Your task to perform on an android device: Open Yahoo.com Image 0: 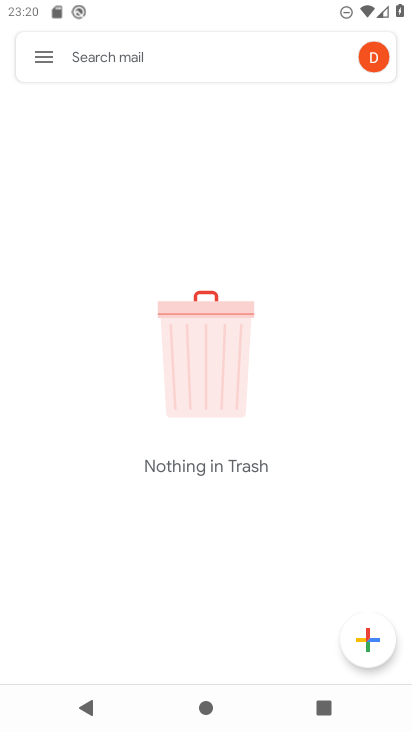
Step 0: press home button
Your task to perform on an android device: Open Yahoo.com Image 1: 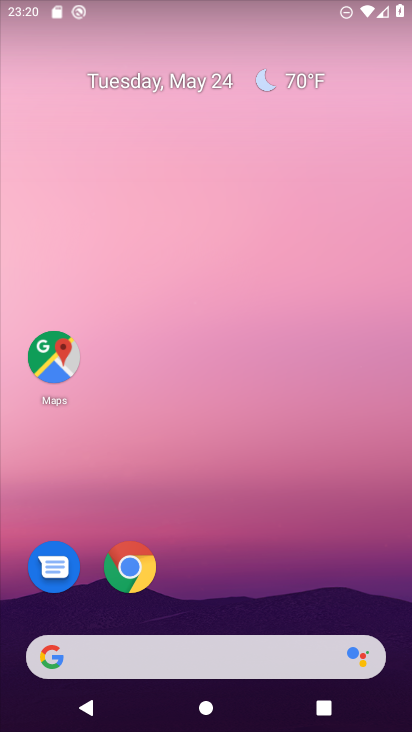
Step 1: click (139, 572)
Your task to perform on an android device: Open Yahoo.com Image 2: 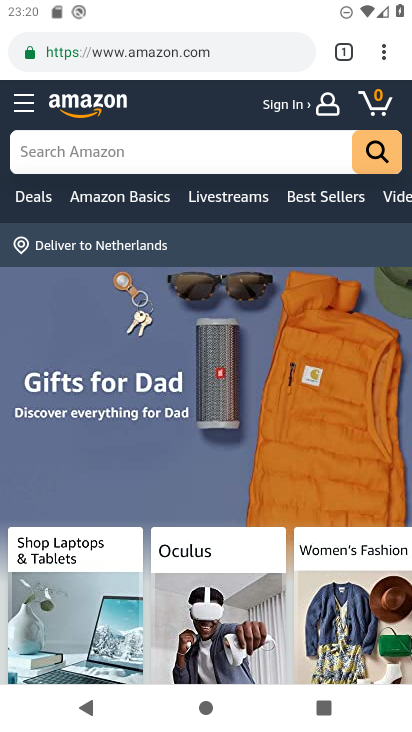
Step 2: click (335, 48)
Your task to perform on an android device: Open Yahoo.com Image 3: 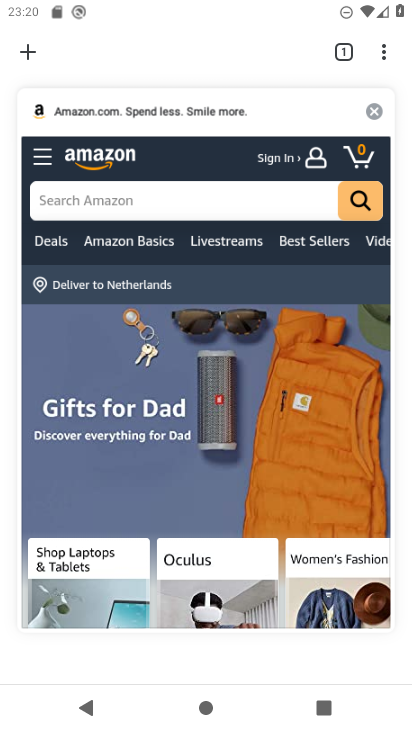
Step 3: click (36, 53)
Your task to perform on an android device: Open Yahoo.com Image 4: 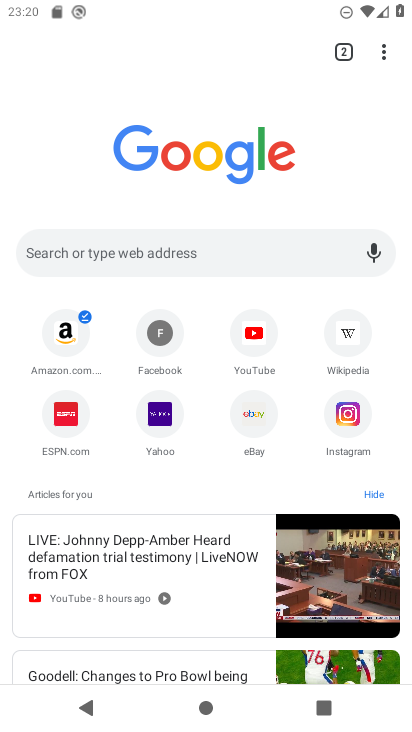
Step 4: click (159, 418)
Your task to perform on an android device: Open Yahoo.com Image 5: 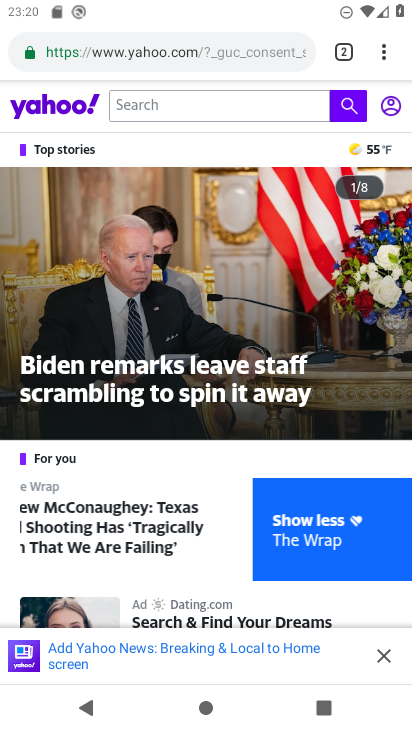
Step 5: task complete